Your task to perform on an android device: set the timer Image 0: 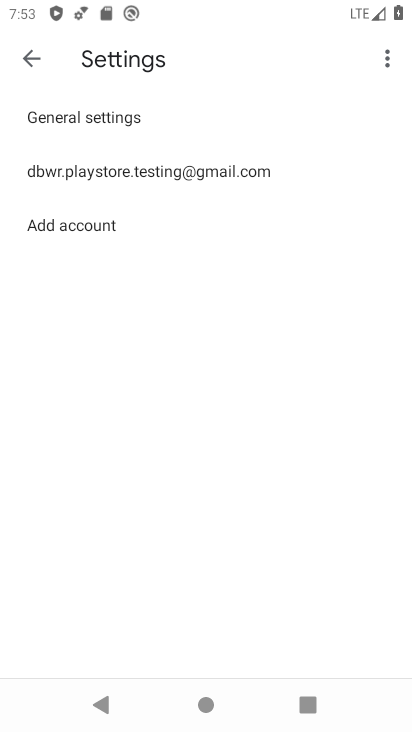
Step 0: press back button
Your task to perform on an android device: set the timer Image 1: 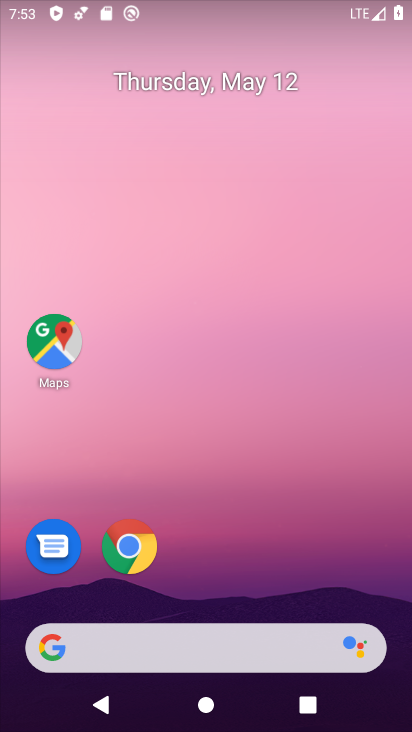
Step 1: drag from (221, 565) to (291, 95)
Your task to perform on an android device: set the timer Image 2: 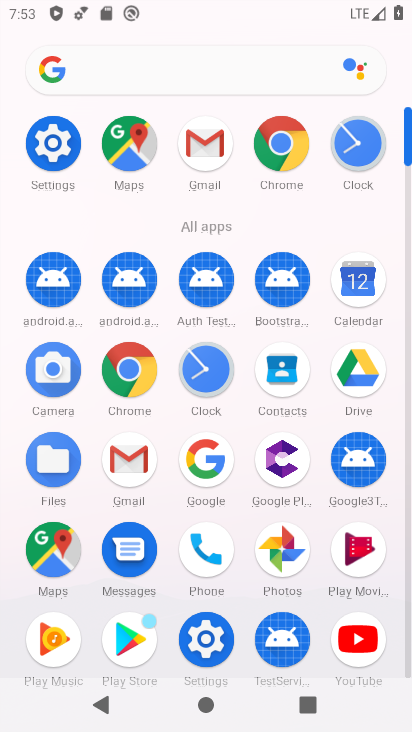
Step 2: click (210, 363)
Your task to perform on an android device: set the timer Image 3: 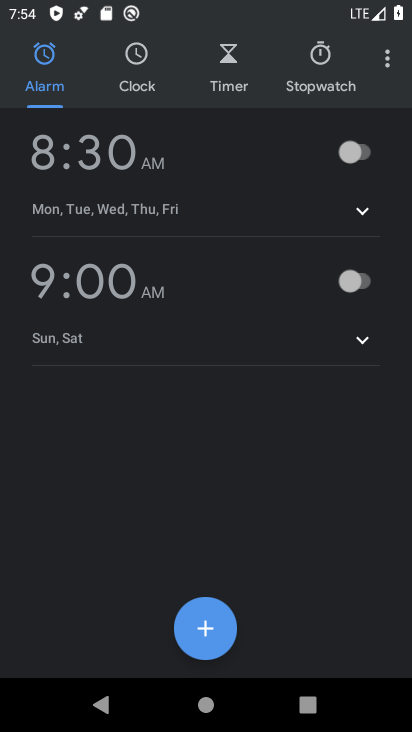
Step 3: click (221, 75)
Your task to perform on an android device: set the timer Image 4: 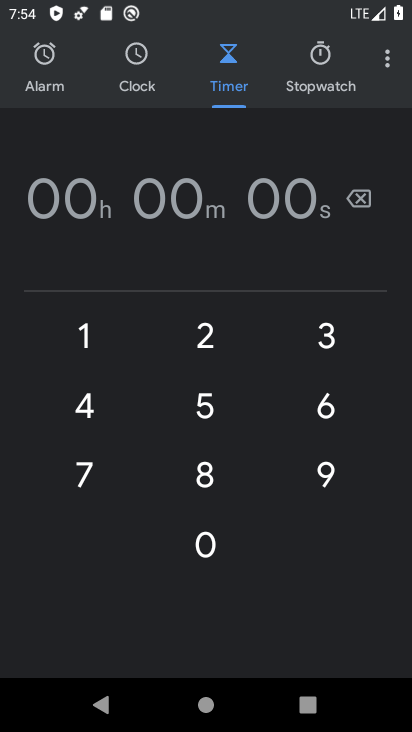
Step 4: click (240, 333)
Your task to perform on an android device: set the timer Image 5: 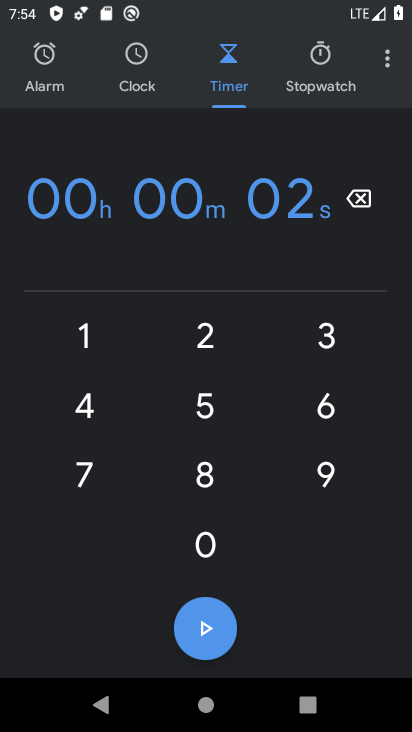
Step 5: click (191, 400)
Your task to perform on an android device: set the timer Image 6: 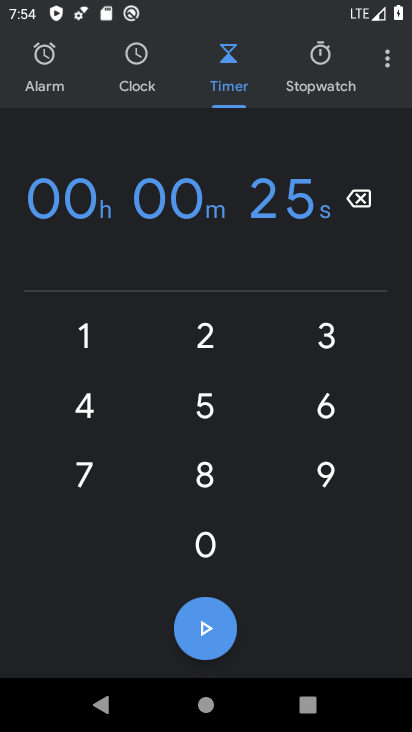
Step 6: click (337, 353)
Your task to perform on an android device: set the timer Image 7: 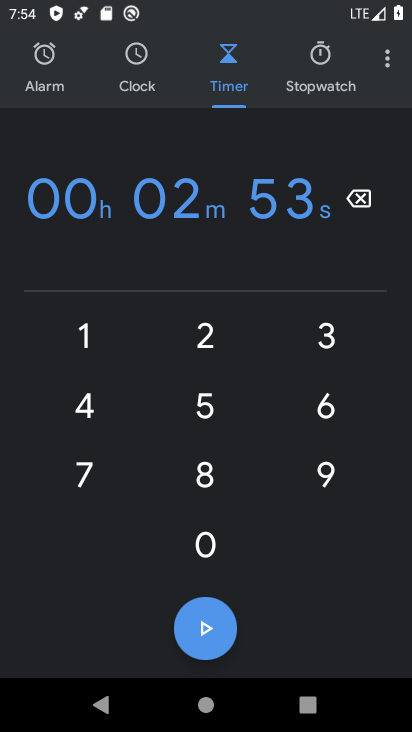
Step 7: task complete